Your task to perform on an android device: uninstall "Messenger Lite" Image 0: 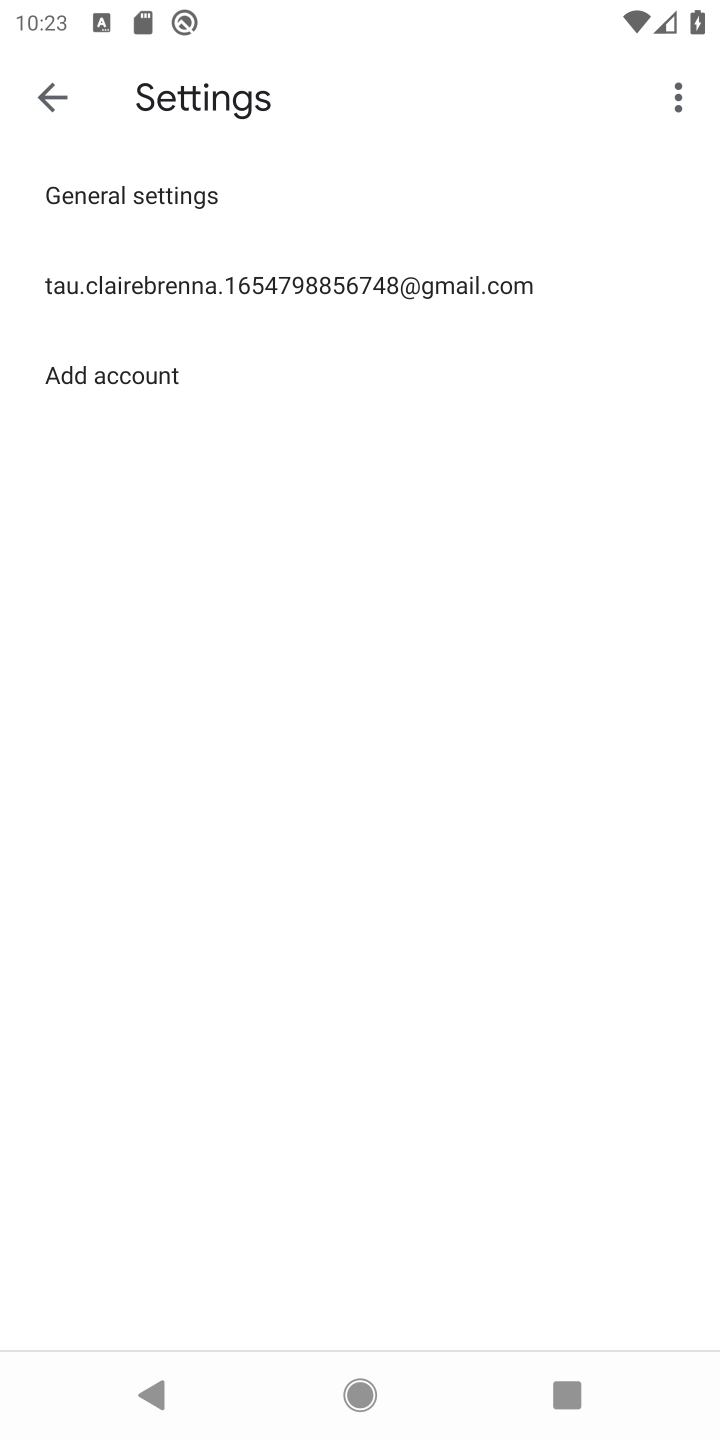
Step 0: press home button
Your task to perform on an android device: uninstall "Messenger Lite" Image 1: 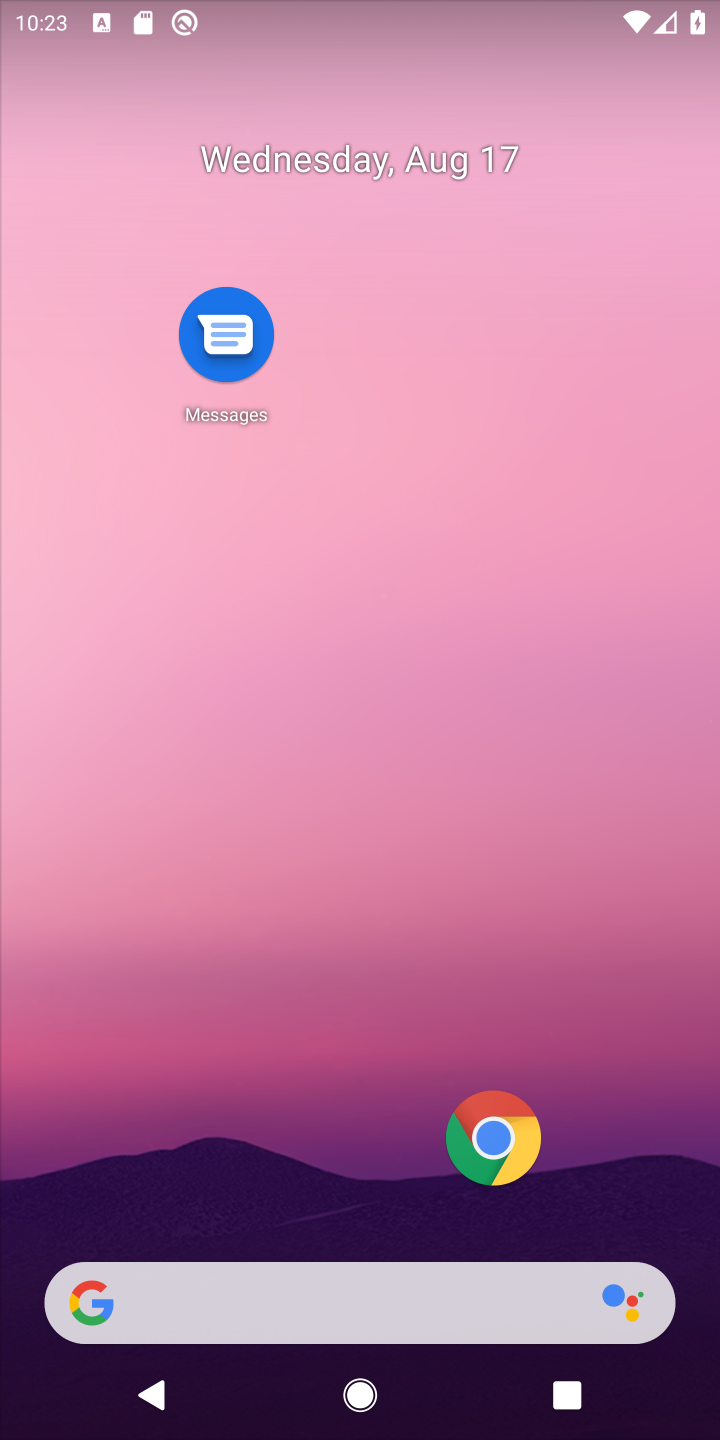
Step 1: drag from (293, 1074) to (387, 476)
Your task to perform on an android device: uninstall "Messenger Lite" Image 2: 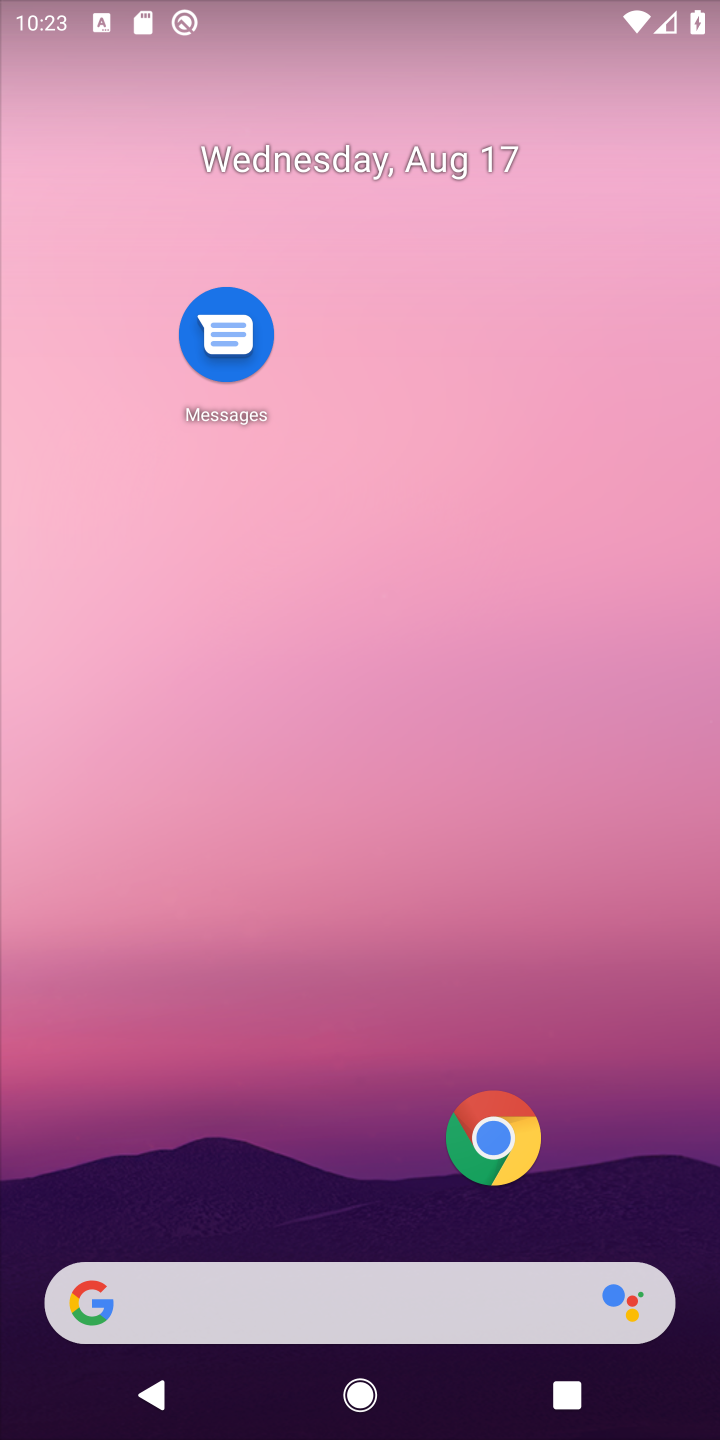
Step 2: drag from (299, 1018) to (380, 148)
Your task to perform on an android device: uninstall "Messenger Lite" Image 3: 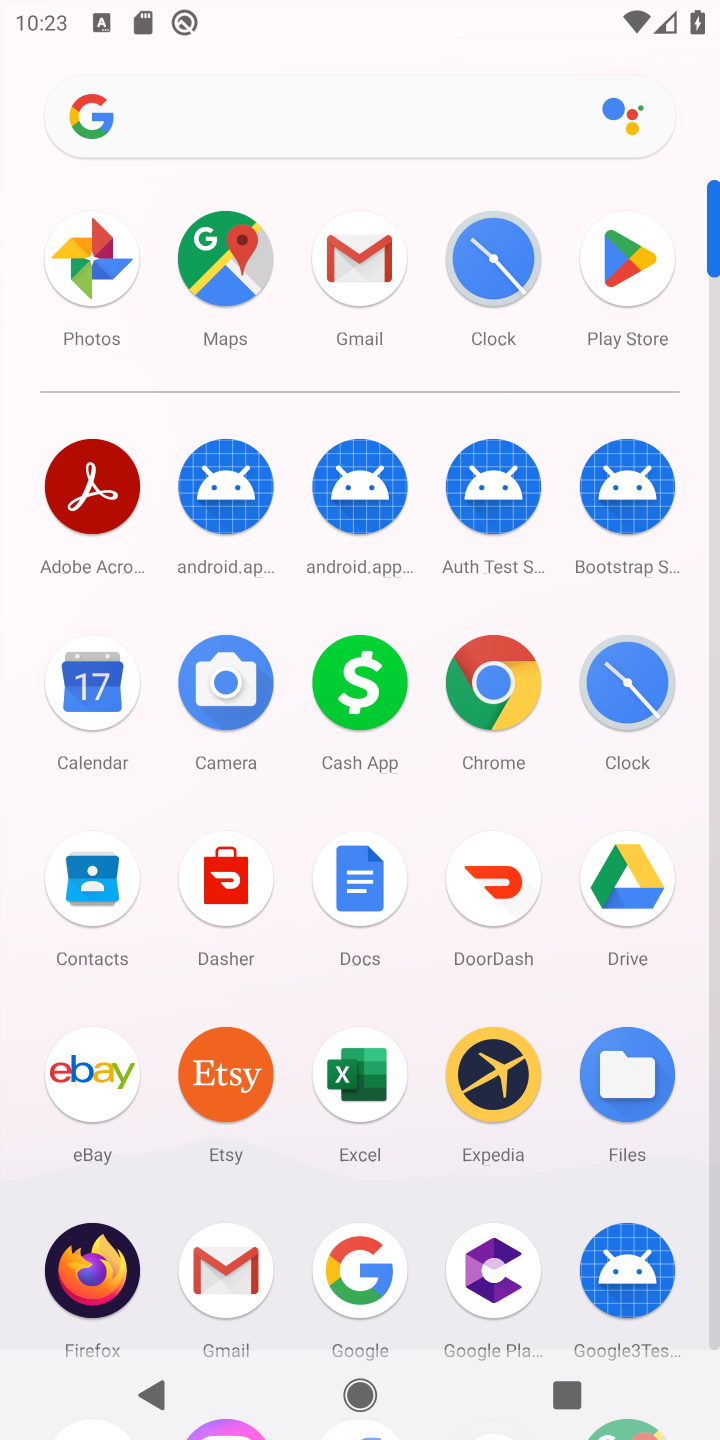
Step 3: click (633, 256)
Your task to perform on an android device: uninstall "Messenger Lite" Image 4: 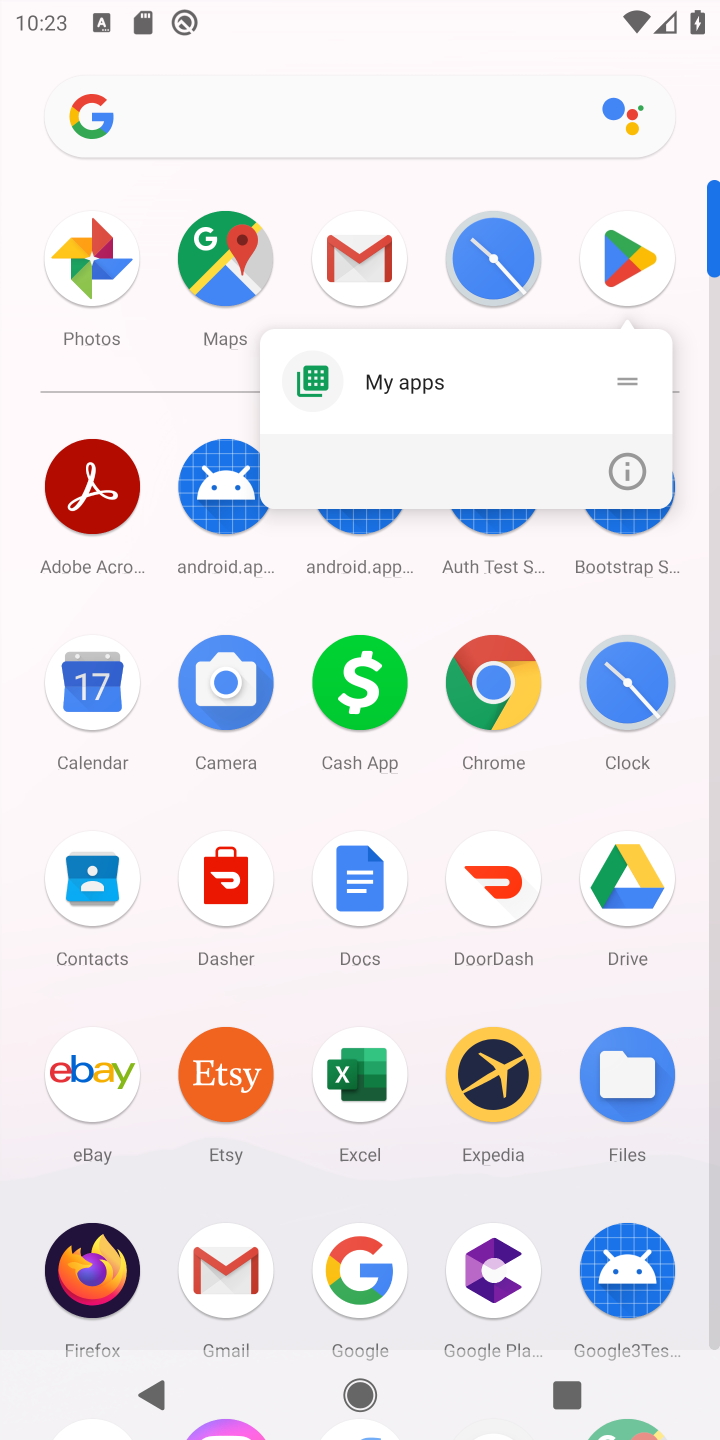
Step 4: click (651, 263)
Your task to perform on an android device: uninstall "Messenger Lite" Image 5: 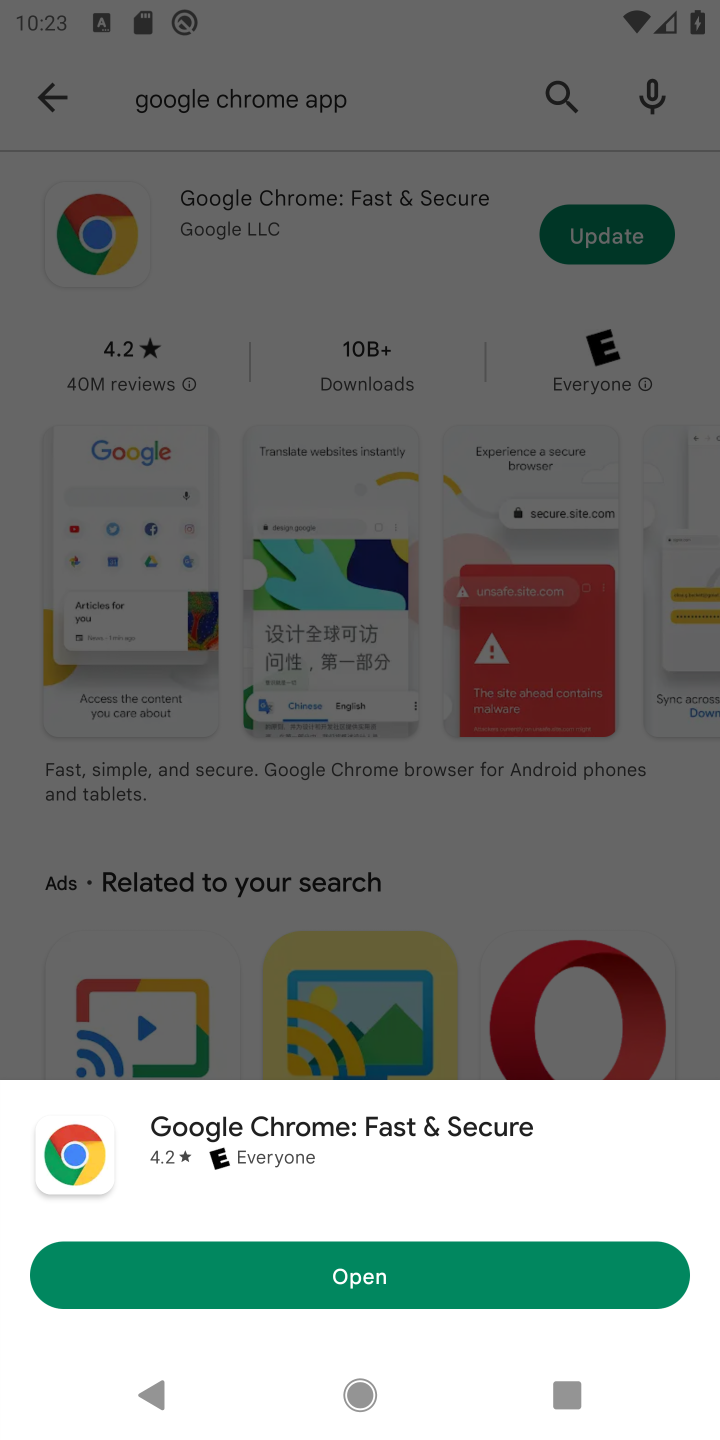
Step 5: click (622, 910)
Your task to perform on an android device: uninstall "Messenger Lite" Image 6: 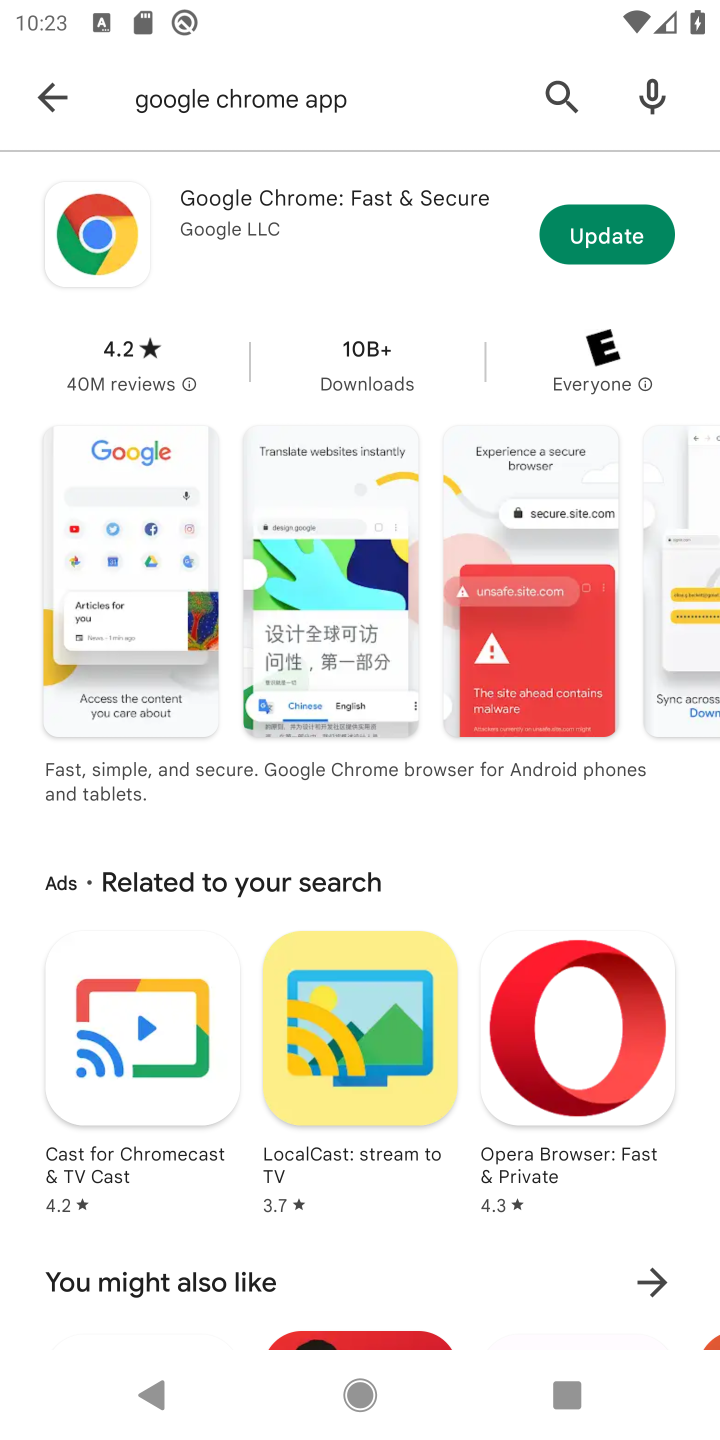
Step 6: click (52, 92)
Your task to perform on an android device: uninstall "Messenger Lite" Image 7: 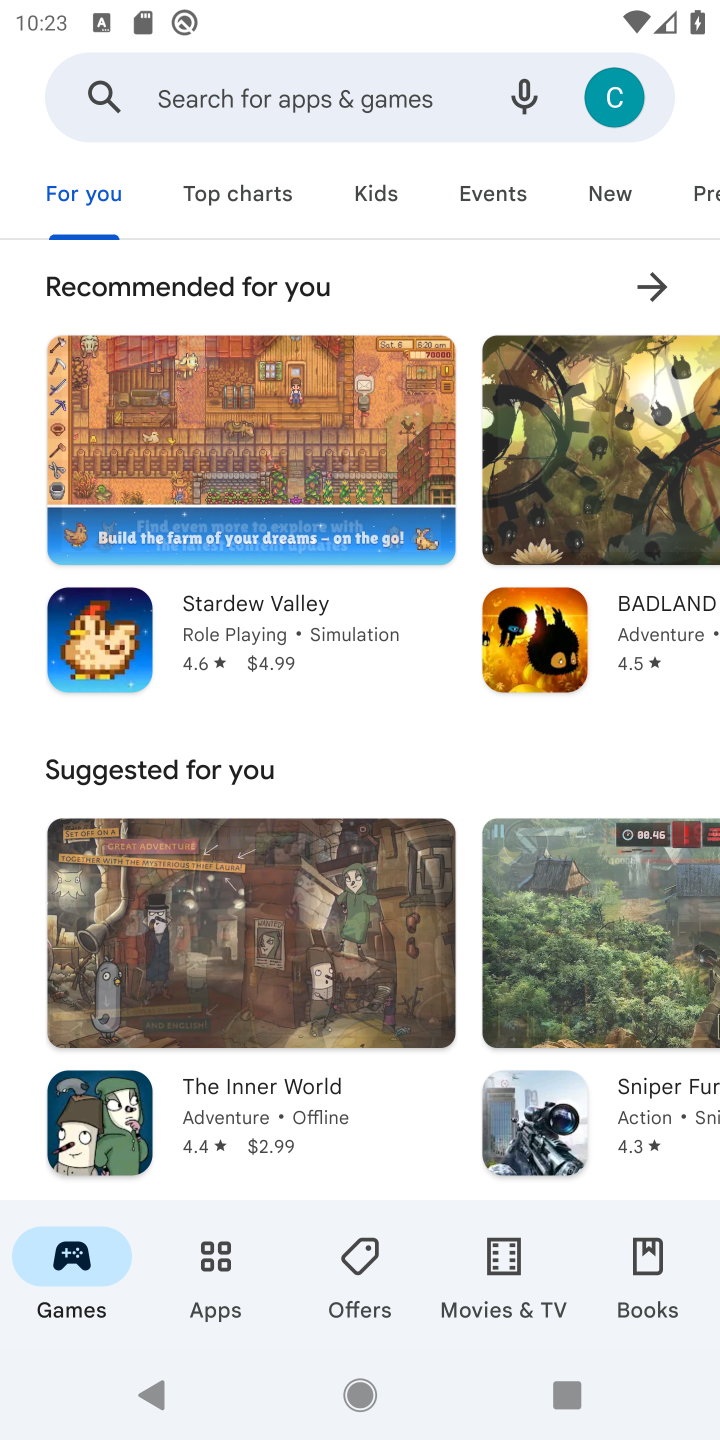
Step 7: click (301, 90)
Your task to perform on an android device: uninstall "Messenger Lite" Image 8: 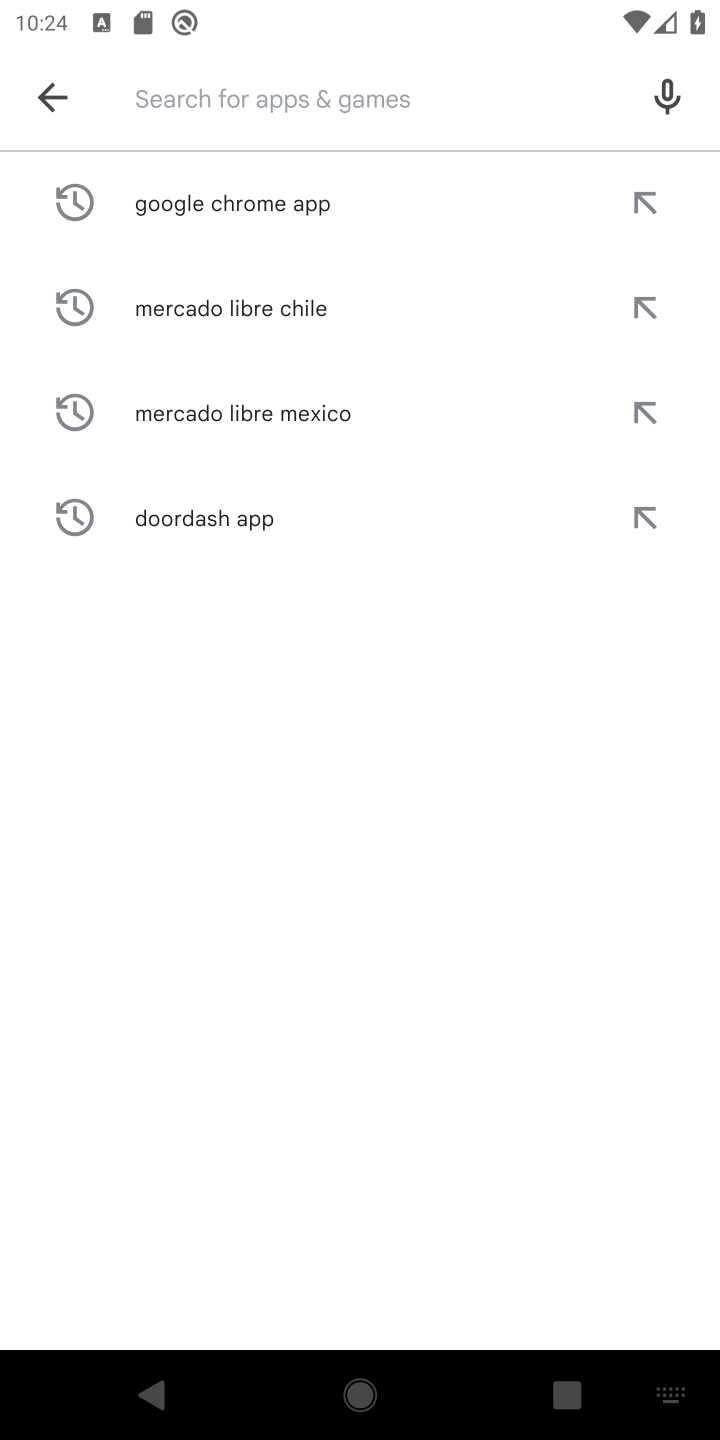
Step 8: type "messenger lite "
Your task to perform on an android device: uninstall "Messenger Lite" Image 9: 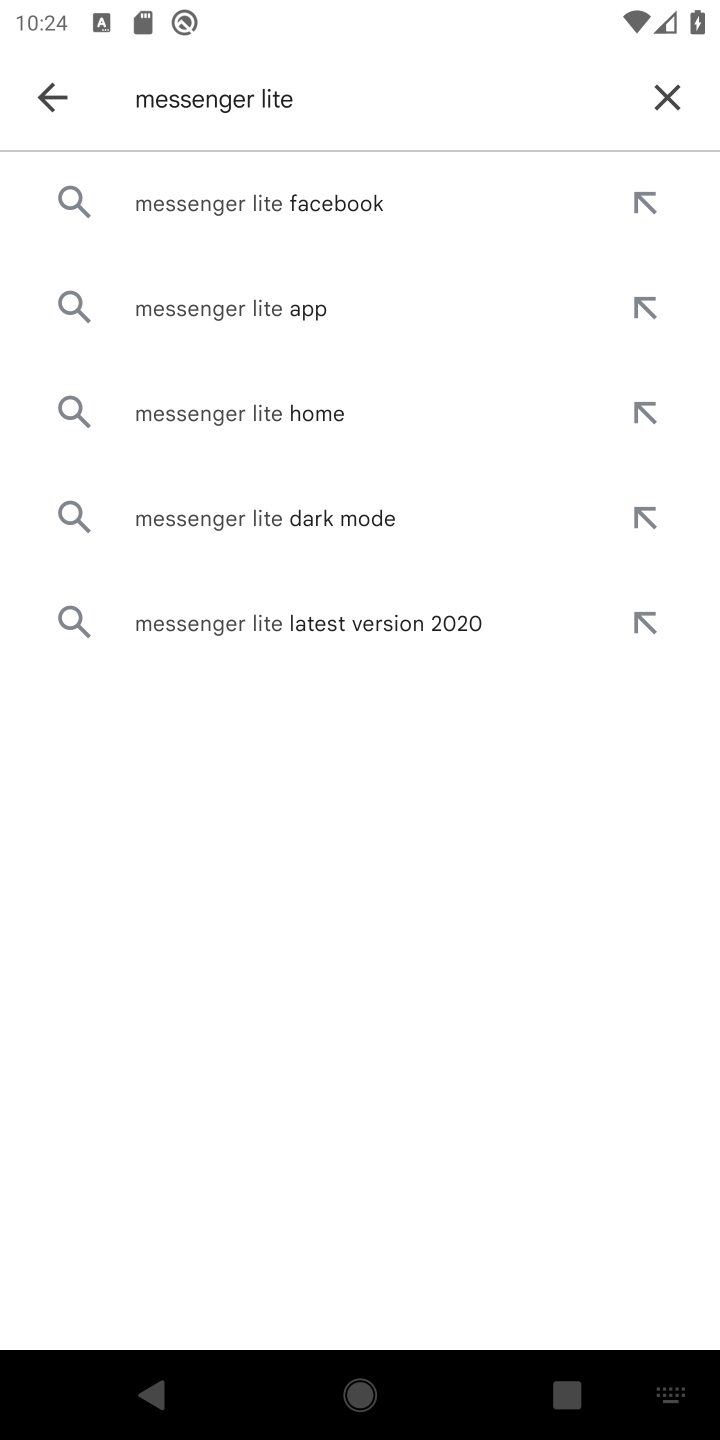
Step 9: click (256, 300)
Your task to perform on an android device: uninstall "Messenger Lite" Image 10: 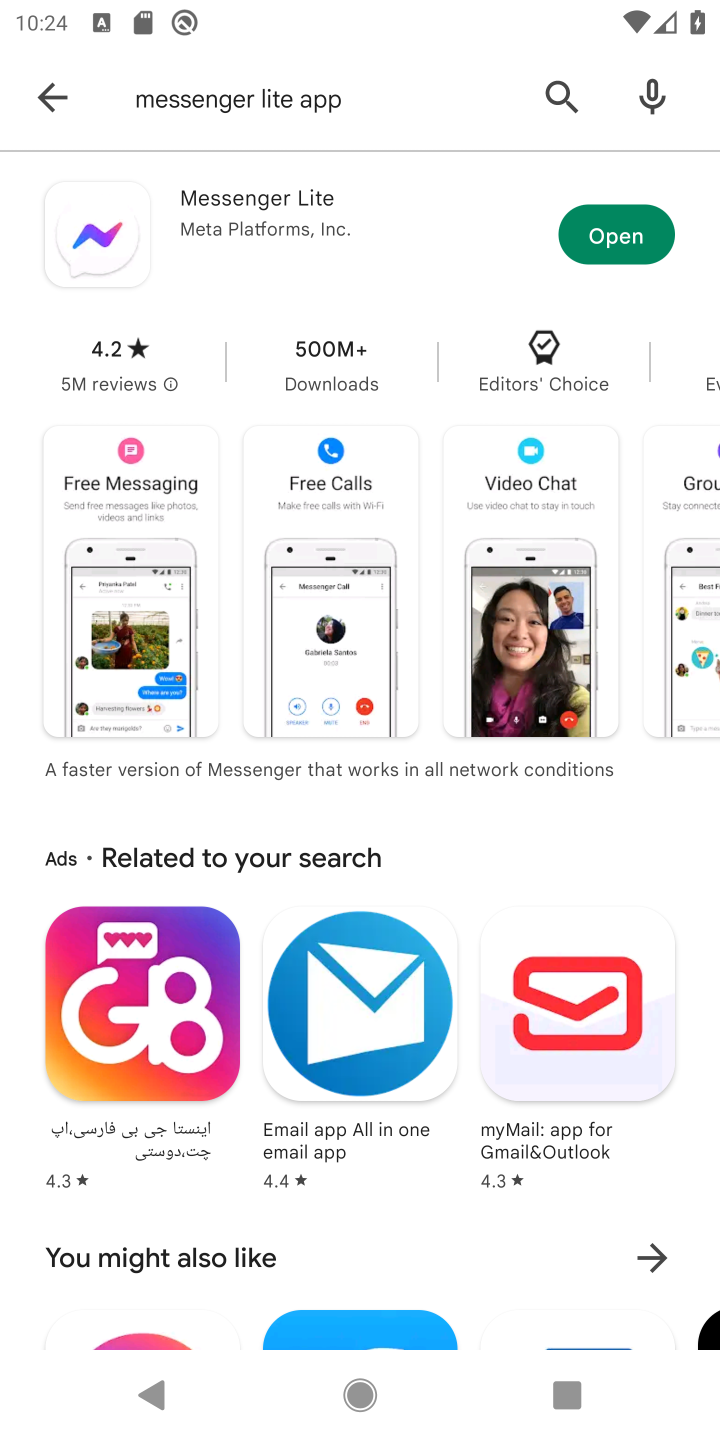
Step 10: click (247, 201)
Your task to perform on an android device: uninstall "Messenger Lite" Image 11: 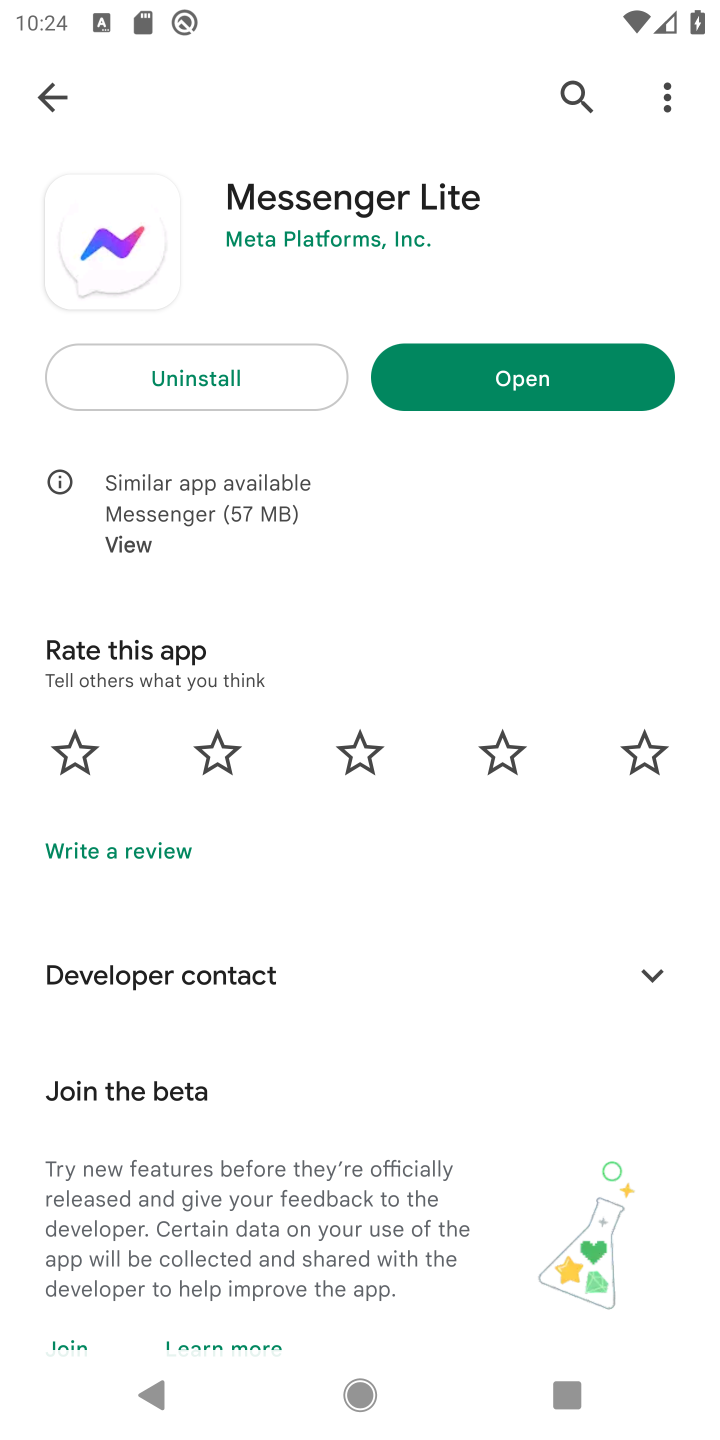
Step 11: click (266, 382)
Your task to perform on an android device: uninstall "Messenger Lite" Image 12: 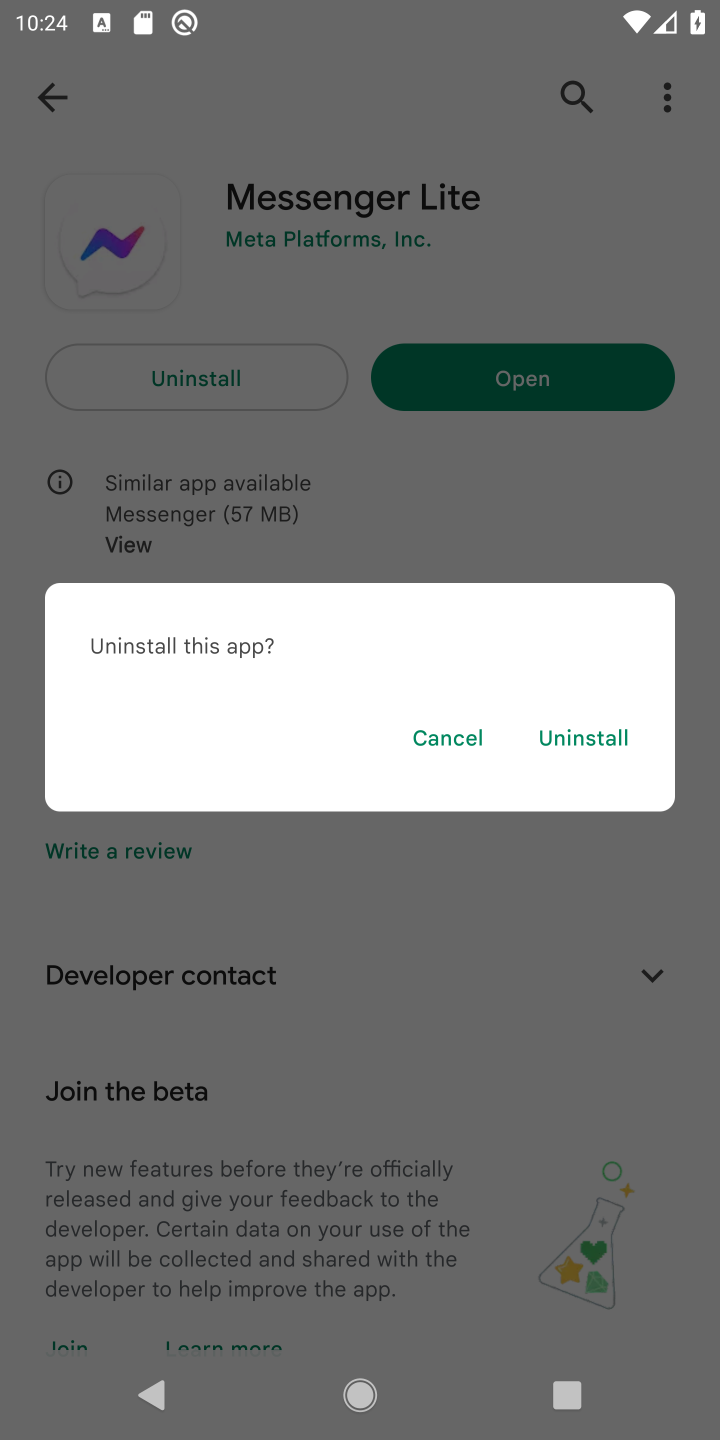
Step 12: click (606, 752)
Your task to perform on an android device: uninstall "Messenger Lite" Image 13: 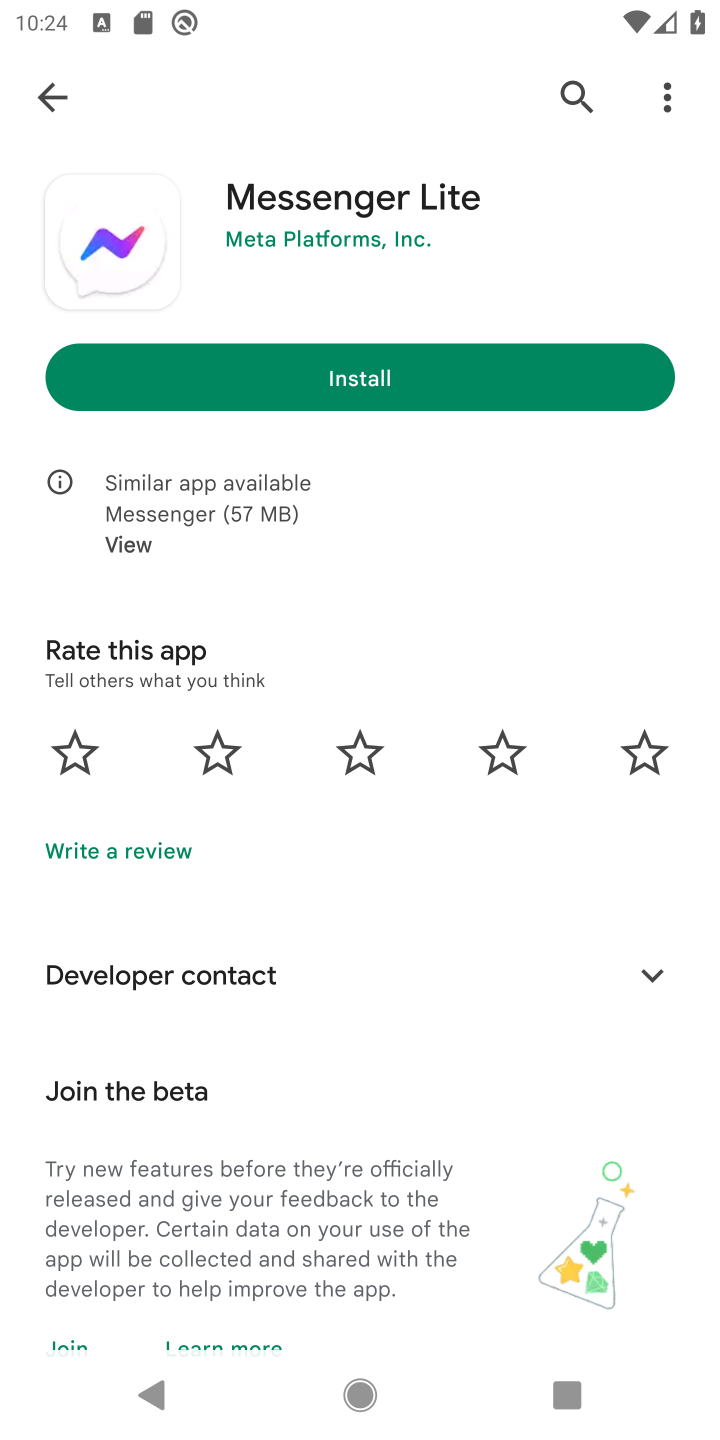
Step 13: task complete